Your task to perform on an android device: Open Maps and search for coffee Image 0: 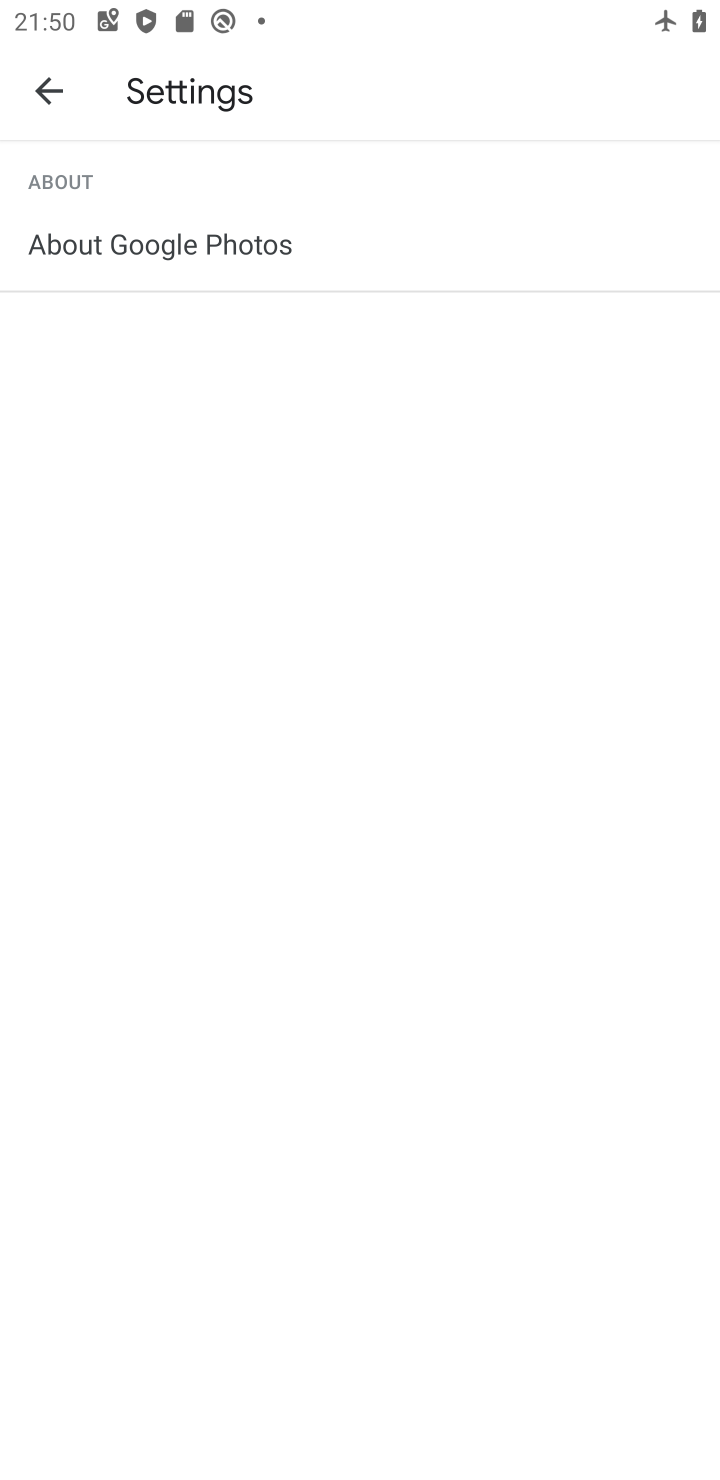
Step 0: press home button
Your task to perform on an android device: Open Maps and search for coffee Image 1: 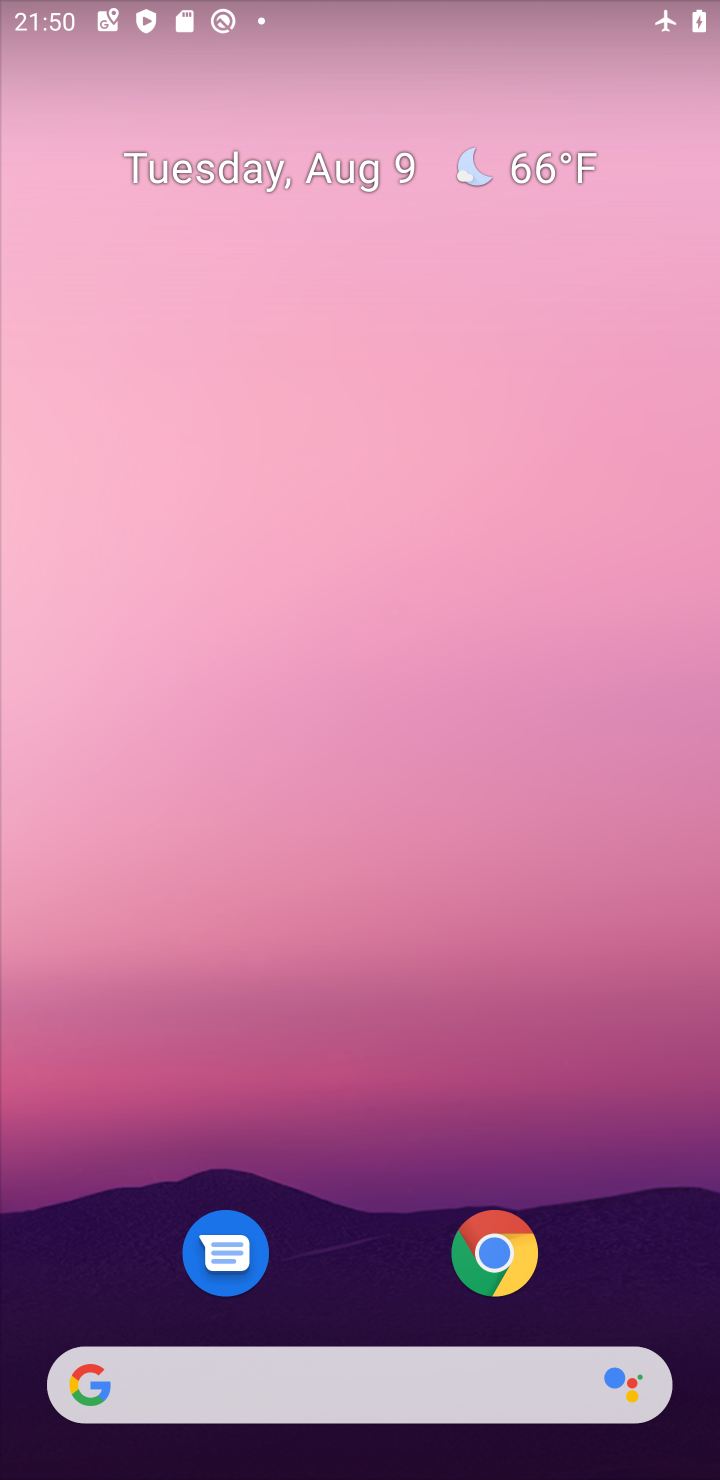
Step 1: drag from (364, 1141) to (404, 248)
Your task to perform on an android device: Open Maps and search for coffee Image 2: 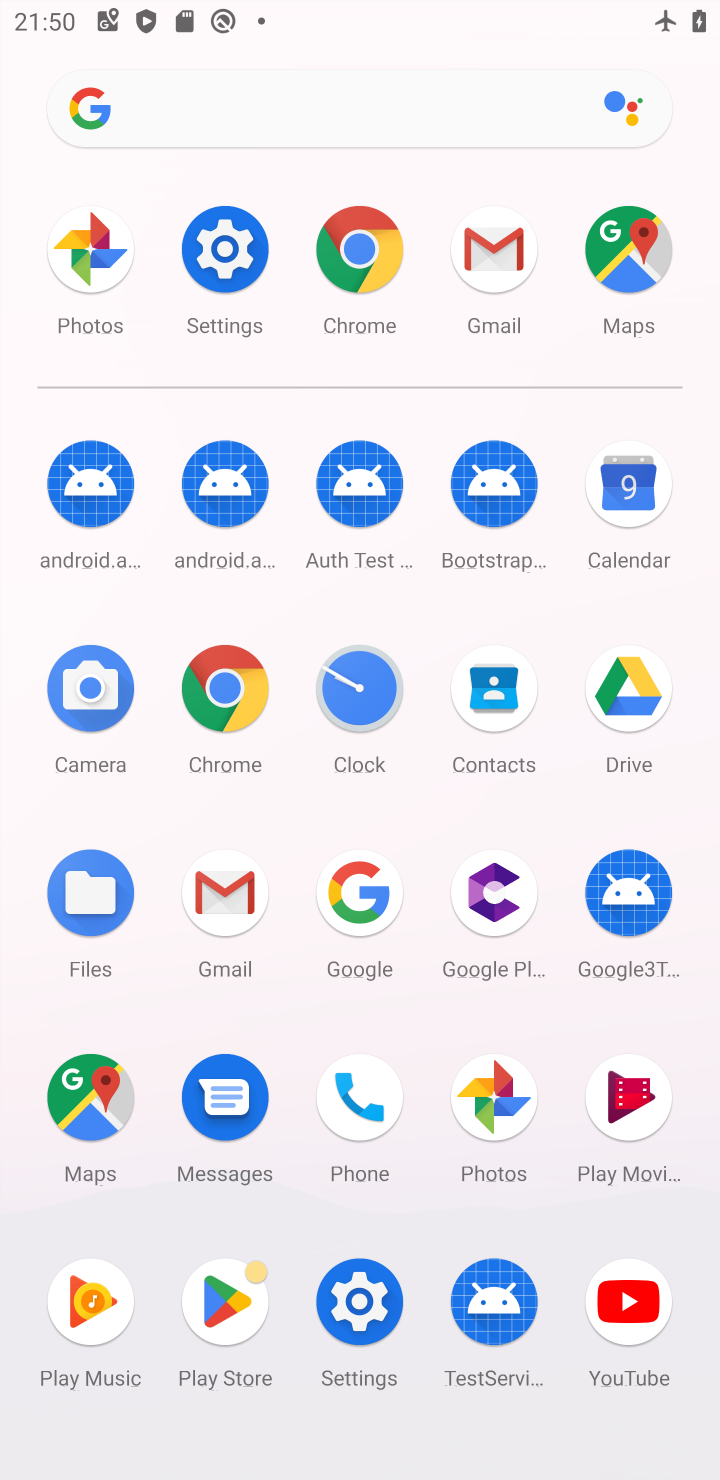
Step 2: click (84, 1095)
Your task to perform on an android device: Open Maps and search for coffee Image 3: 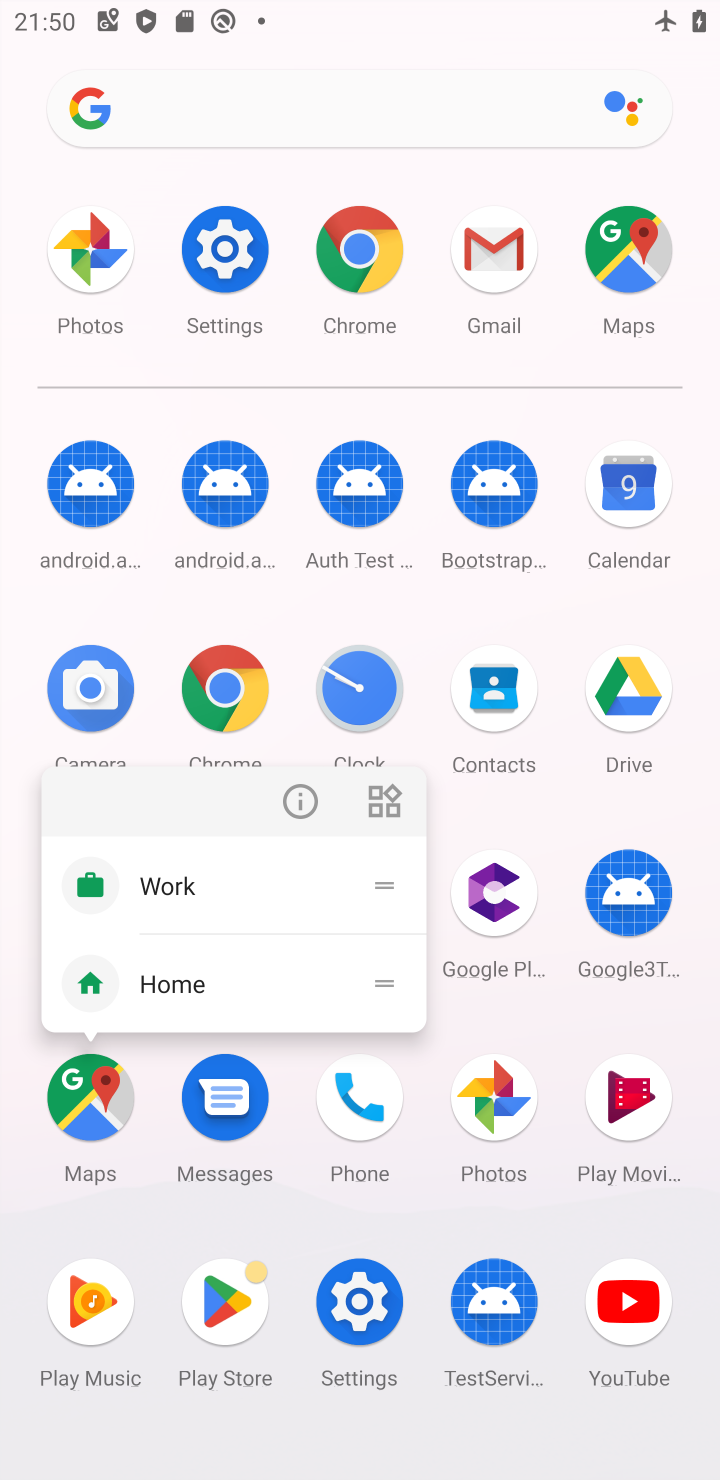
Step 3: click (84, 1107)
Your task to perform on an android device: Open Maps and search for coffee Image 4: 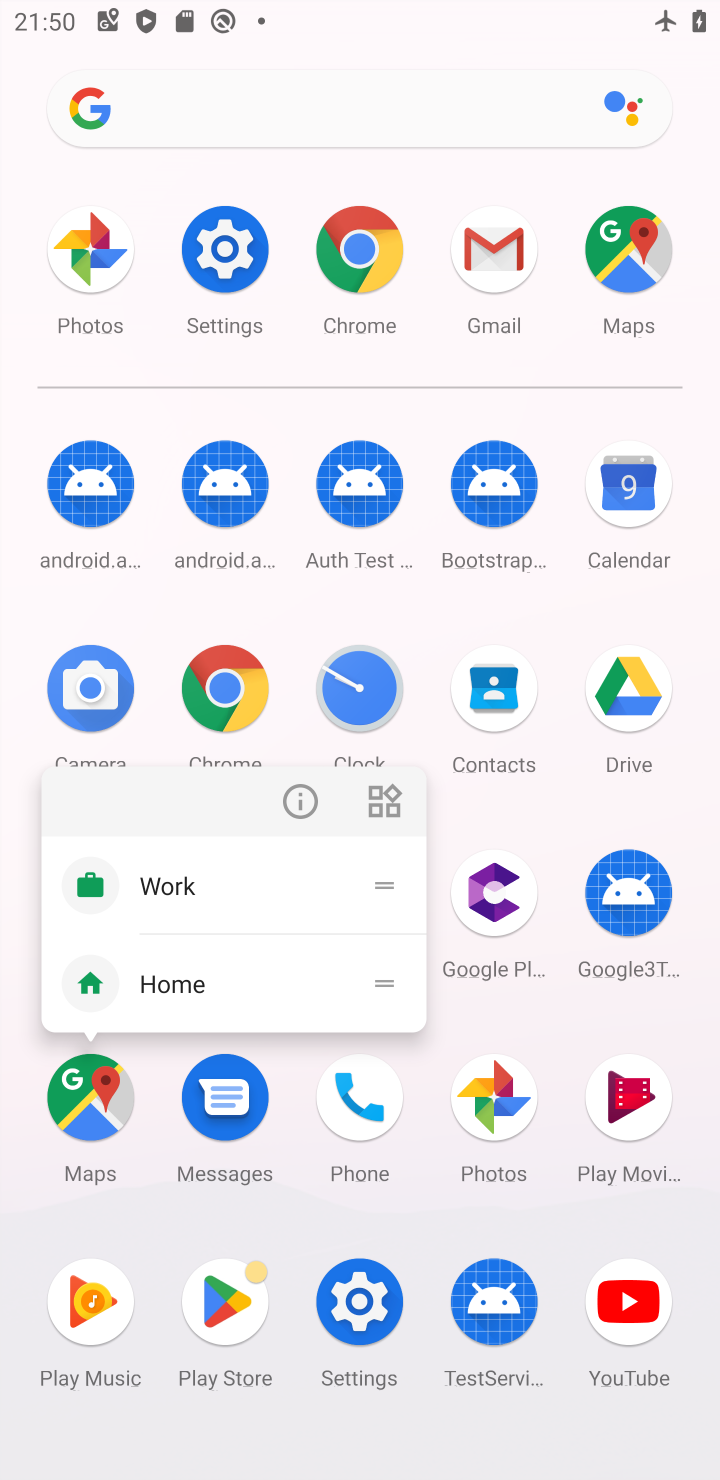
Step 4: click (84, 1107)
Your task to perform on an android device: Open Maps and search for coffee Image 5: 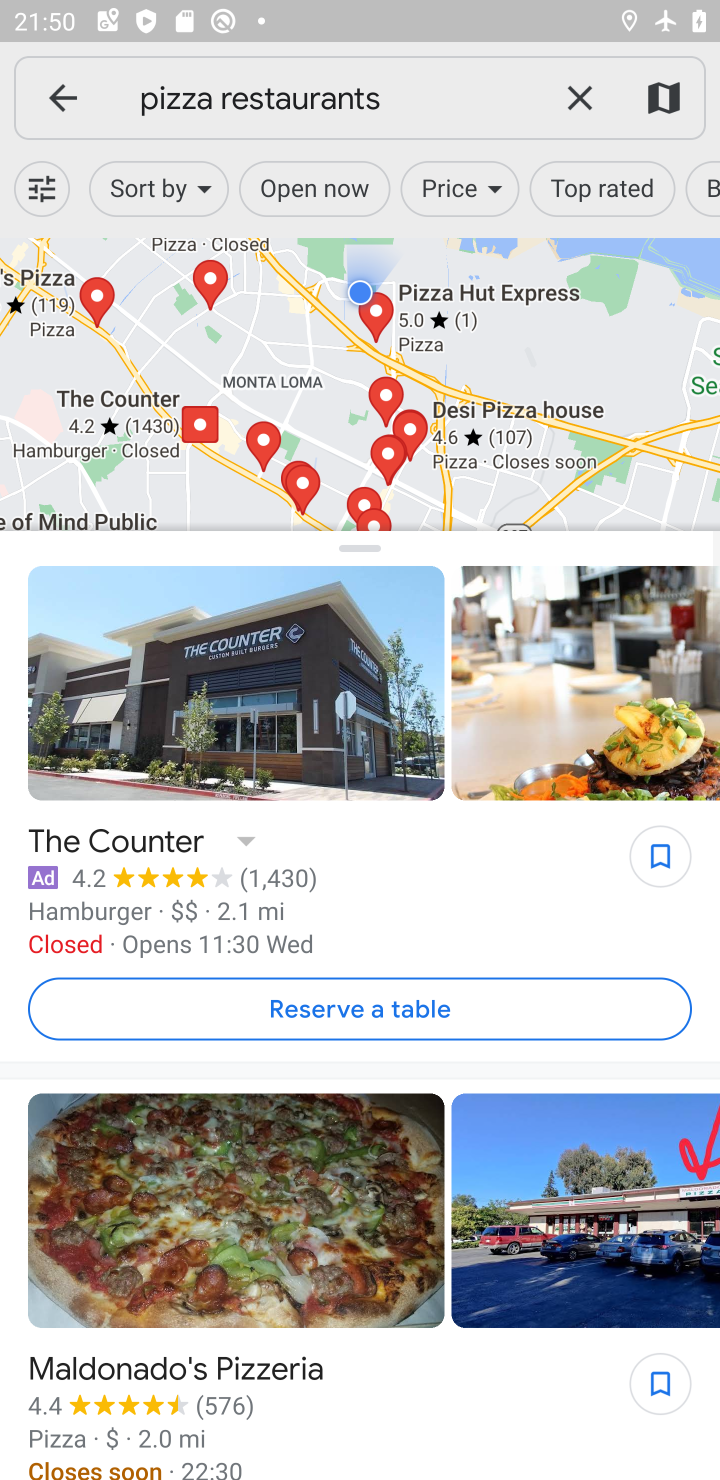
Step 5: click (575, 82)
Your task to perform on an android device: Open Maps and search for coffee Image 6: 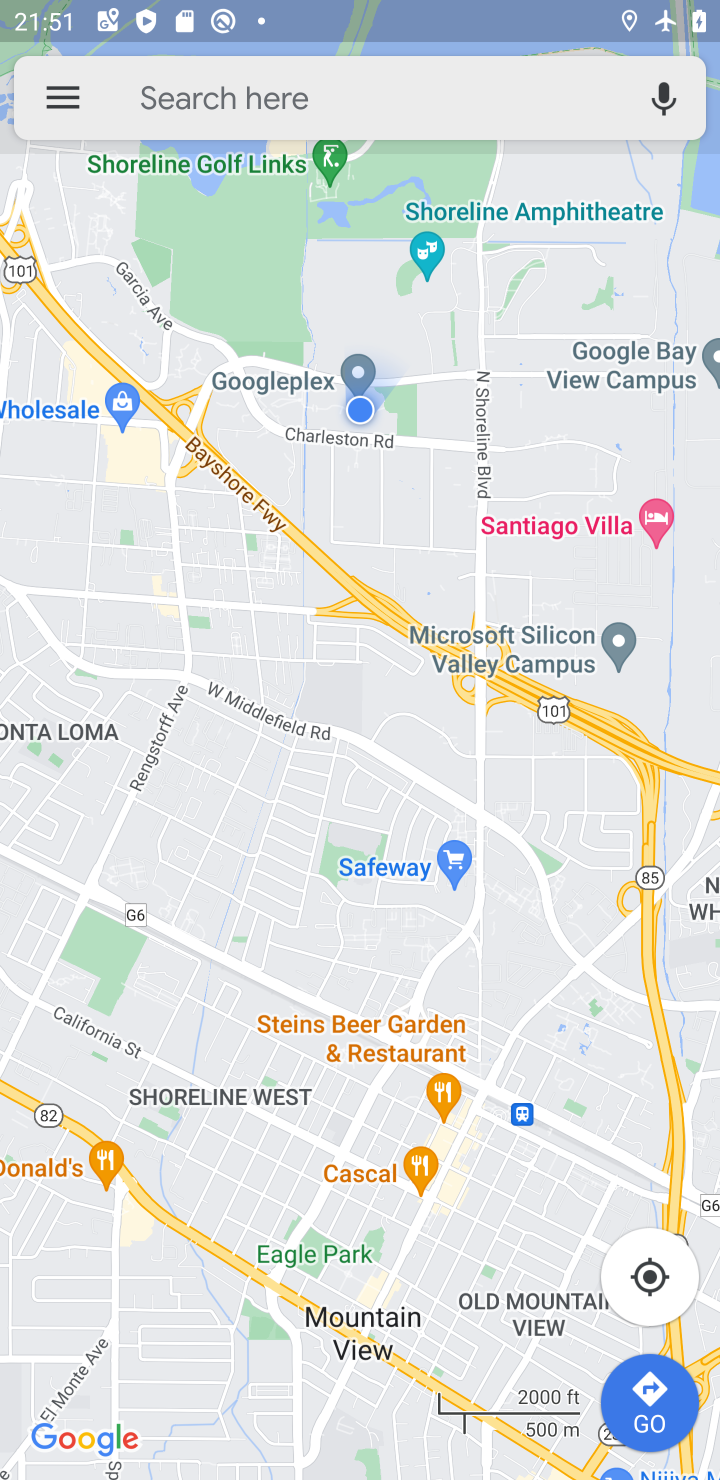
Step 6: click (454, 108)
Your task to perform on an android device: Open Maps and search for coffee Image 7: 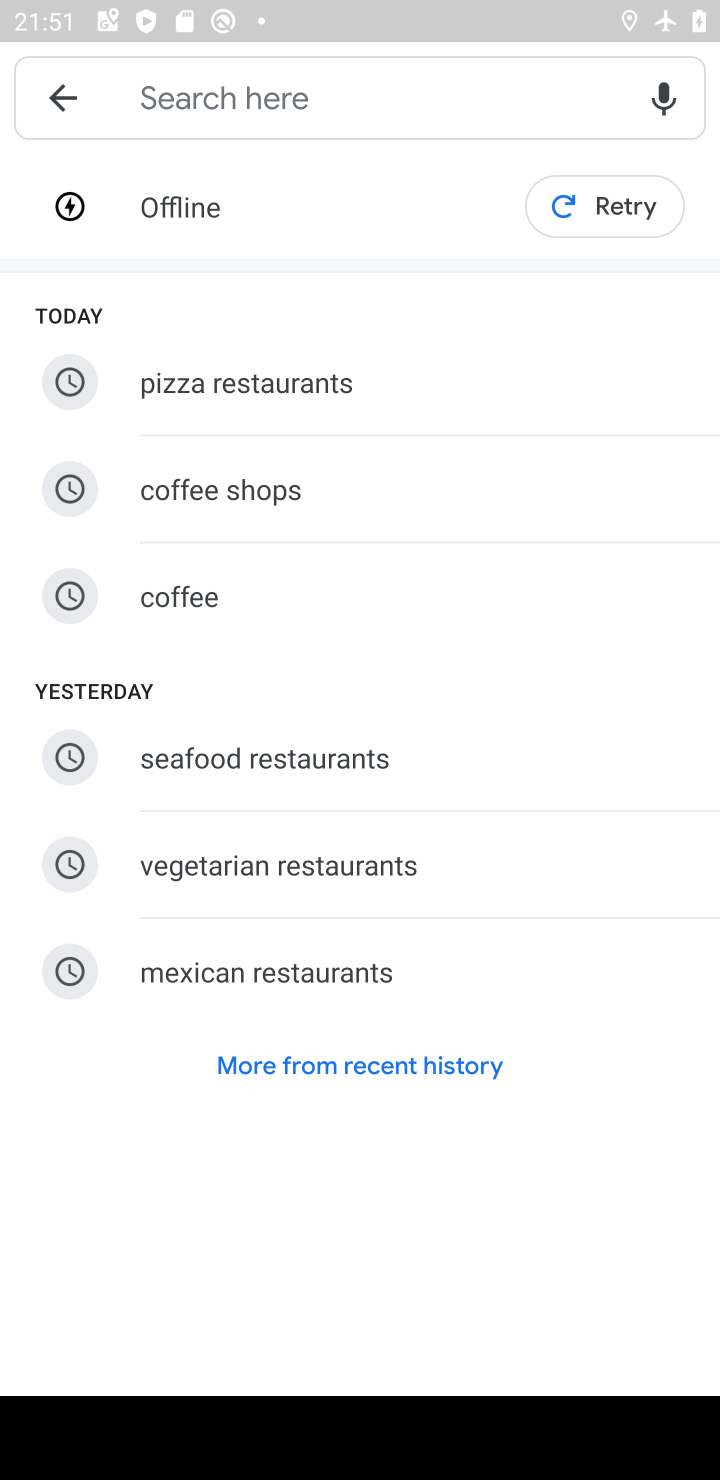
Step 7: click (172, 603)
Your task to perform on an android device: Open Maps and search for coffee Image 8: 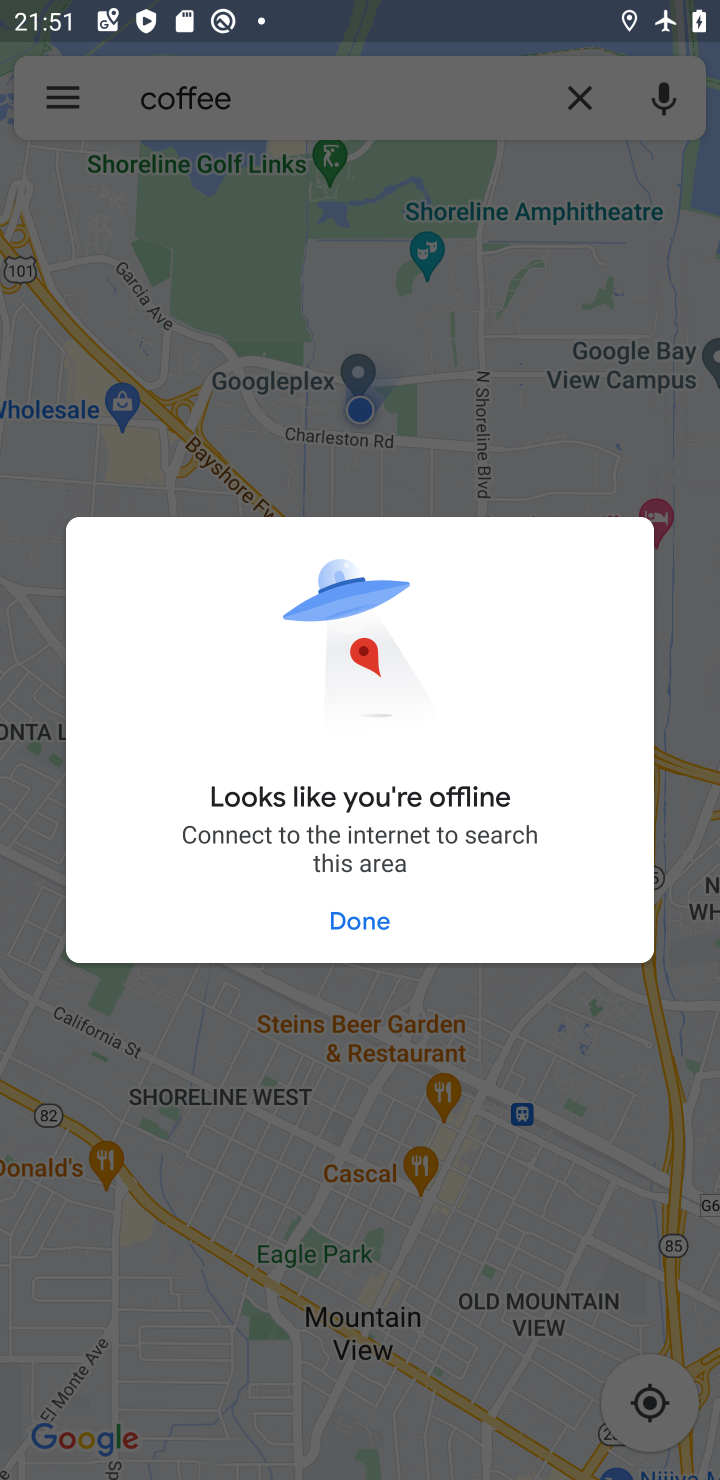
Step 8: task complete